Your task to perform on an android device: Show the shopping cart on newegg. Image 0: 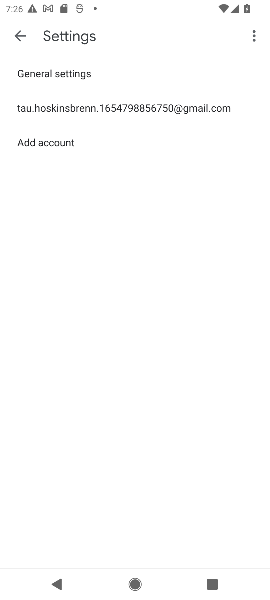
Step 0: press home button
Your task to perform on an android device: Show the shopping cart on newegg. Image 1: 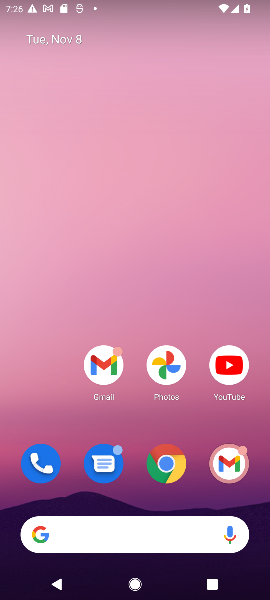
Step 1: click (166, 477)
Your task to perform on an android device: Show the shopping cart on newegg. Image 2: 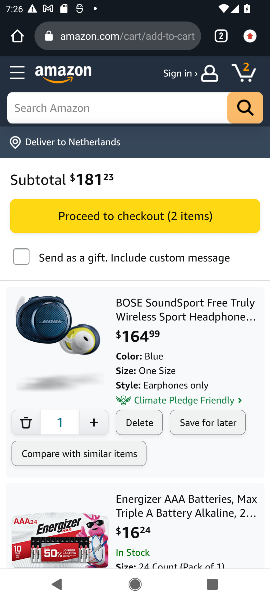
Step 2: click (129, 36)
Your task to perform on an android device: Show the shopping cart on newegg. Image 3: 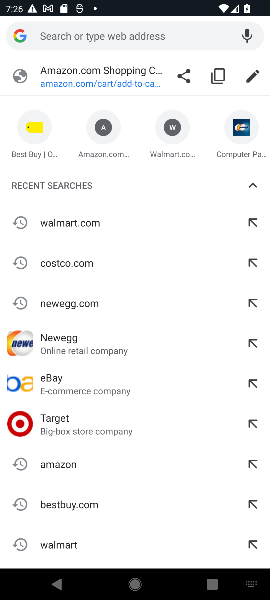
Step 3: click (55, 349)
Your task to perform on an android device: Show the shopping cart on newegg. Image 4: 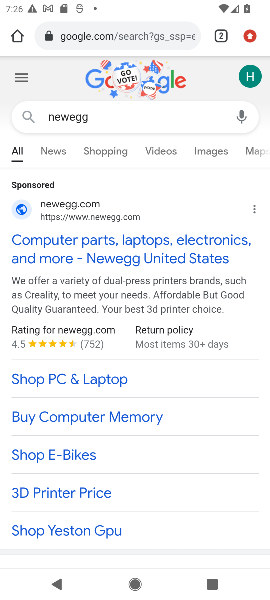
Step 4: click (70, 235)
Your task to perform on an android device: Show the shopping cart on newegg. Image 5: 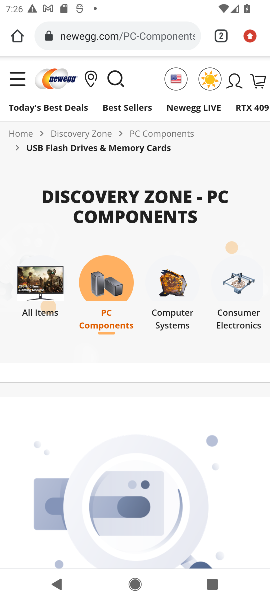
Step 5: click (255, 88)
Your task to perform on an android device: Show the shopping cart on newegg. Image 6: 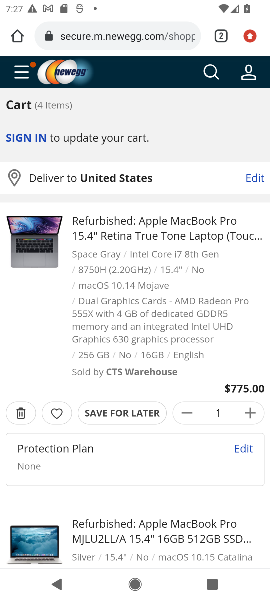
Step 6: task complete